Your task to perform on an android device: see tabs open on other devices in the chrome app Image 0: 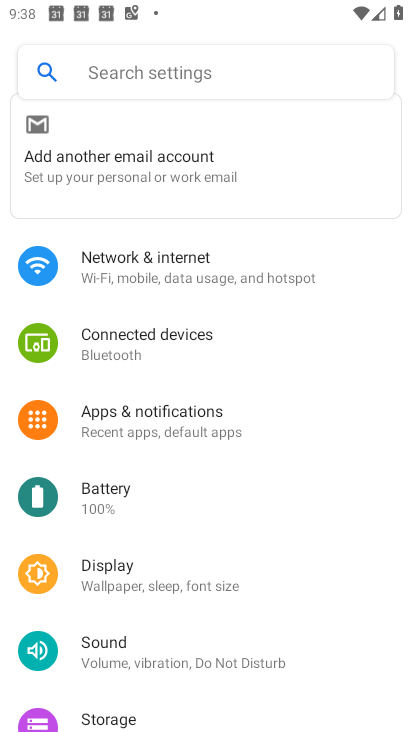
Step 0: press home button
Your task to perform on an android device: see tabs open on other devices in the chrome app Image 1: 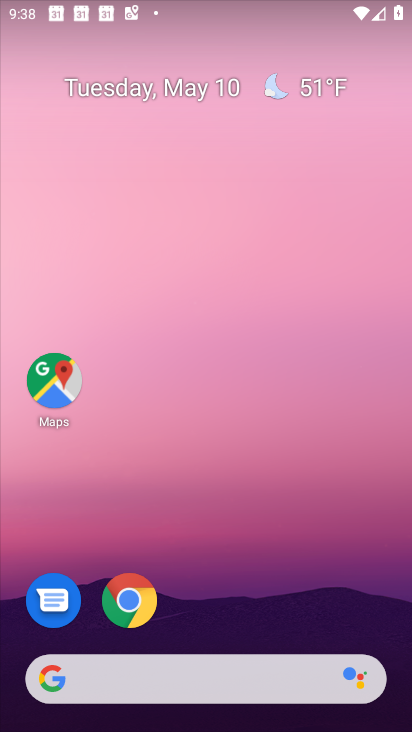
Step 1: click (290, 617)
Your task to perform on an android device: see tabs open on other devices in the chrome app Image 2: 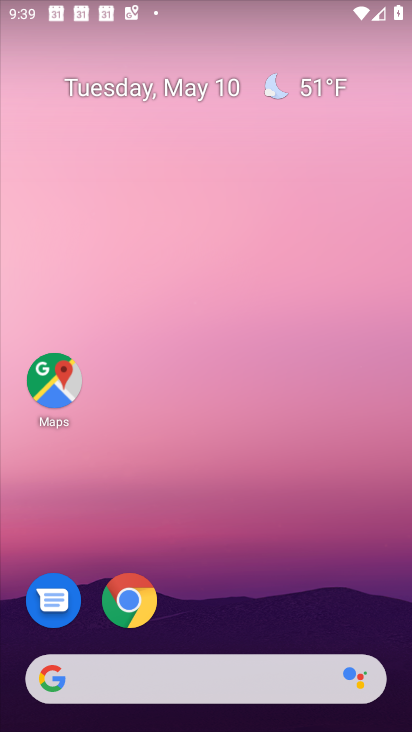
Step 2: click (113, 605)
Your task to perform on an android device: see tabs open on other devices in the chrome app Image 3: 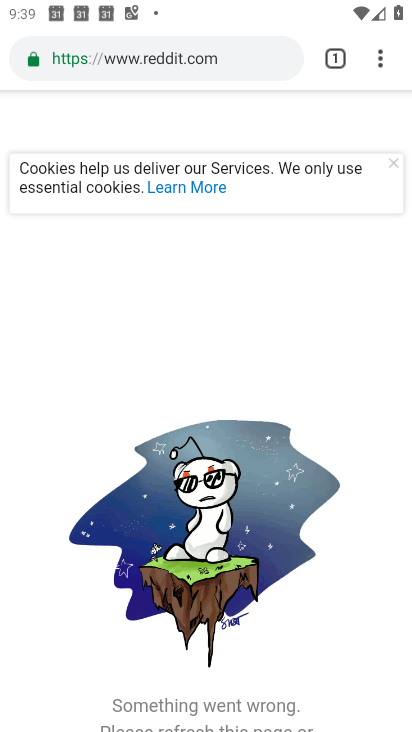
Step 3: click (379, 52)
Your task to perform on an android device: see tabs open on other devices in the chrome app Image 4: 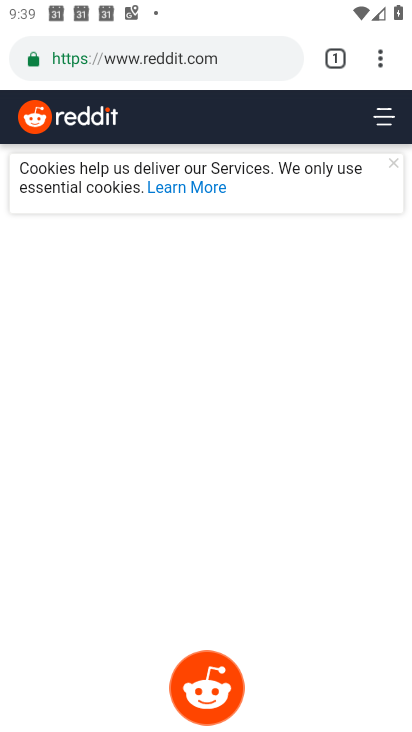
Step 4: click (375, 49)
Your task to perform on an android device: see tabs open on other devices in the chrome app Image 5: 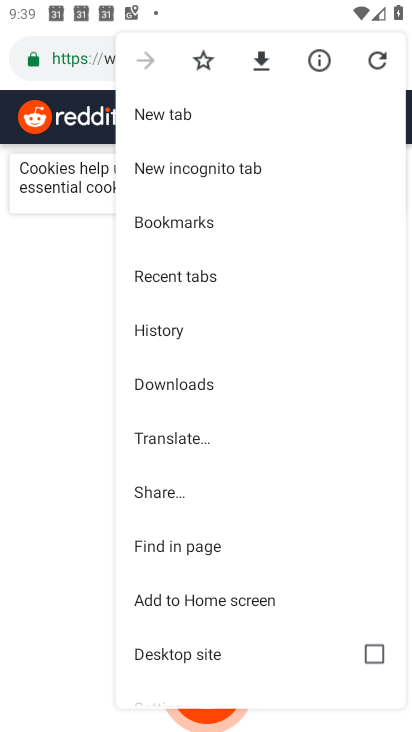
Step 5: click (215, 274)
Your task to perform on an android device: see tabs open on other devices in the chrome app Image 6: 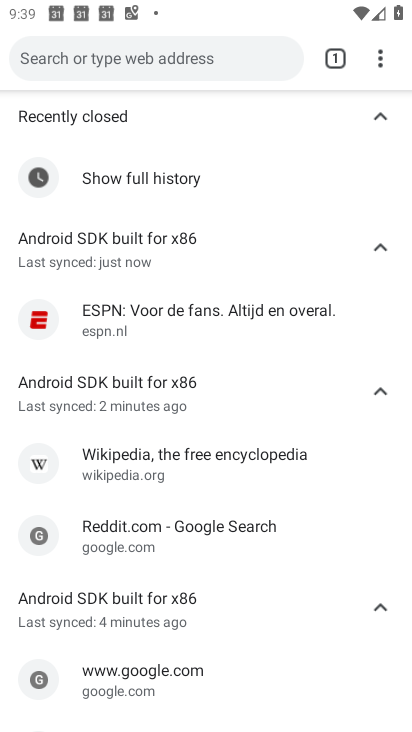
Step 6: task complete